Your task to perform on an android device: toggle notifications settings in the gmail app Image 0: 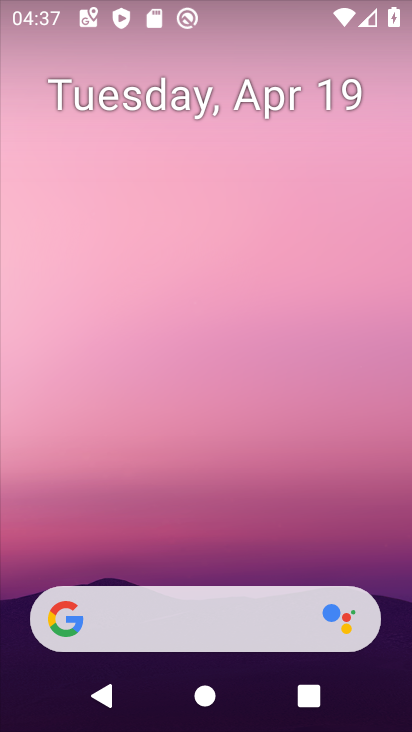
Step 0: drag from (234, 549) to (281, 182)
Your task to perform on an android device: toggle notifications settings in the gmail app Image 1: 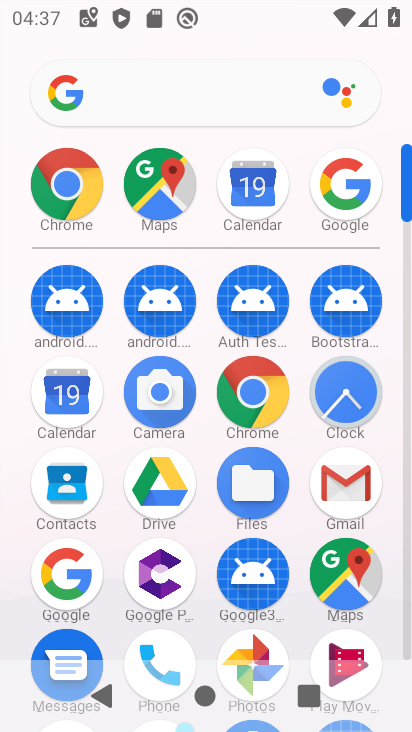
Step 1: click (344, 493)
Your task to perform on an android device: toggle notifications settings in the gmail app Image 2: 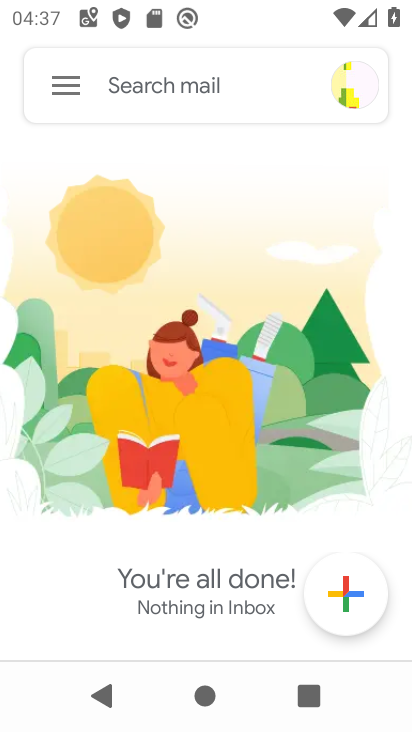
Step 2: click (63, 81)
Your task to perform on an android device: toggle notifications settings in the gmail app Image 3: 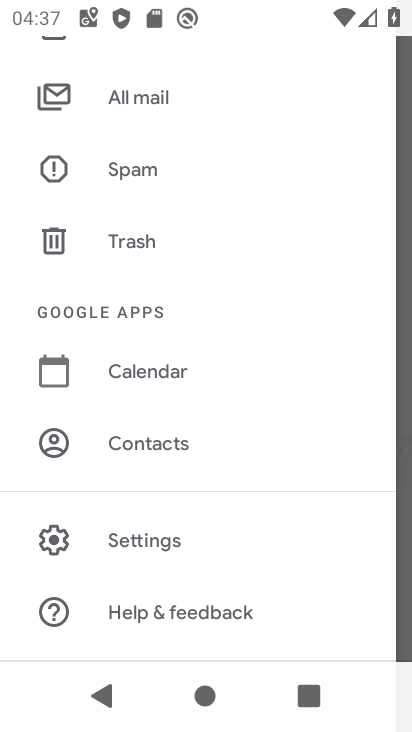
Step 3: click (161, 539)
Your task to perform on an android device: toggle notifications settings in the gmail app Image 4: 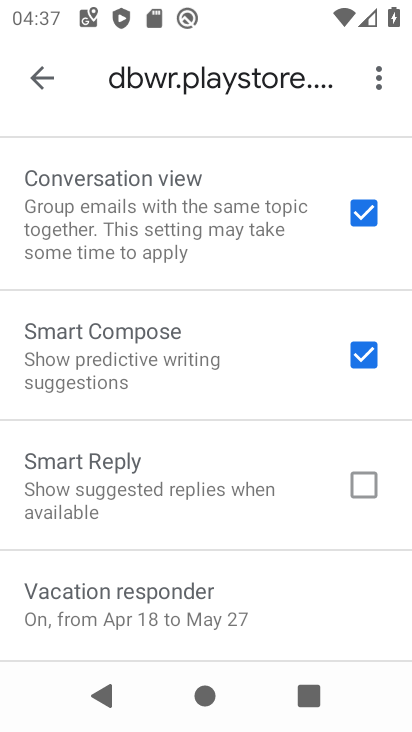
Step 4: drag from (175, 546) to (225, 341)
Your task to perform on an android device: toggle notifications settings in the gmail app Image 5: 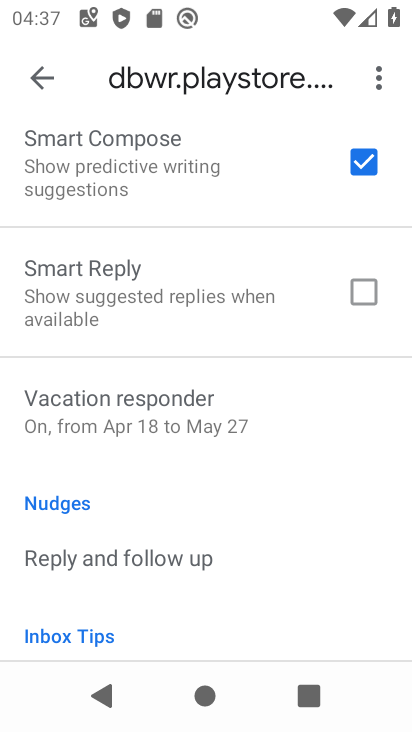
Step 5: drag from (178, 503) to (214, 340)
Your task to perform on an android device: toggle notifications settings in the gmail app Image 6: 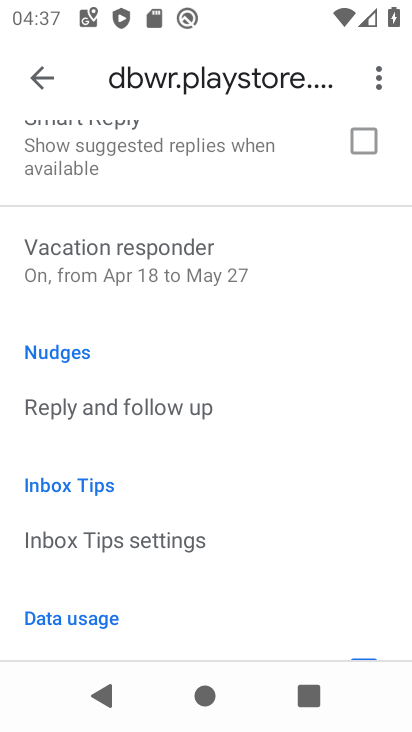
Step 6: drag from (185, 594) to (230, 371)
Your task to perform on an android device: toggle notifications settings in the gmail app Image 7: 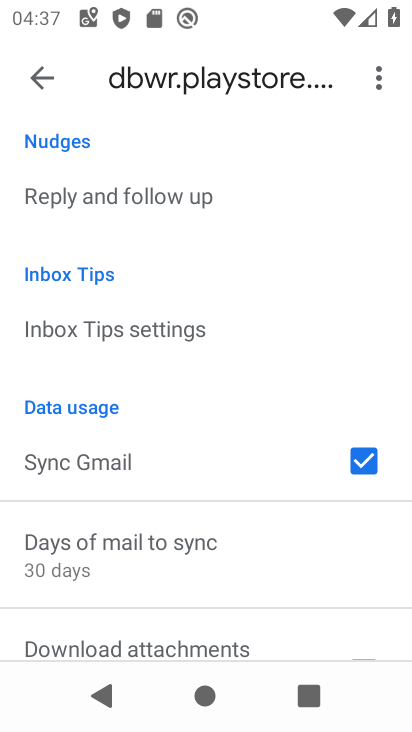
Step 7: drag from (238, 236) to (214, 479)
Your task to perform on an android device: toggle notifications settings in the gmail app Image 8: 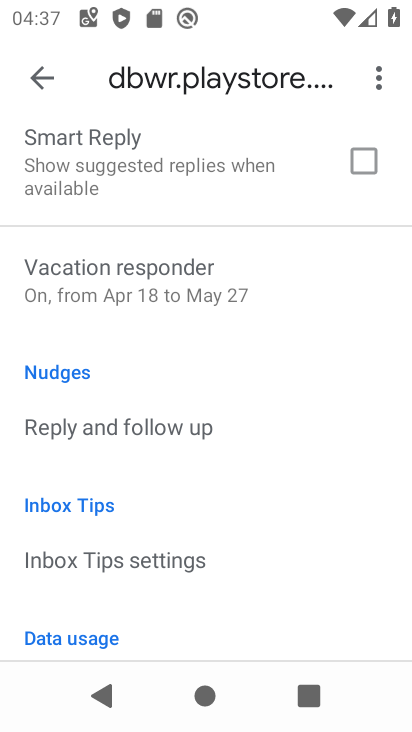
Step 8: drag from (247, 223) to (201, 553)
Your task to perform on an android device: toggle notifications settings in the gmail app Image 9: 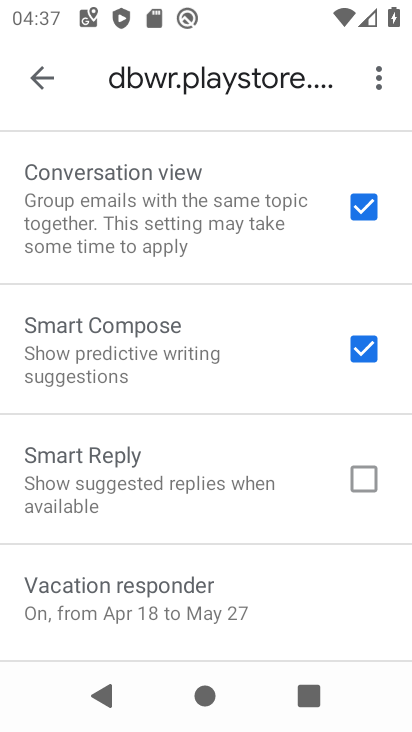
Step 9: drag from (216, 249) to (216, 490)
Your task to perform on an android device: toggle notifications settings in the gmail app Image 10: 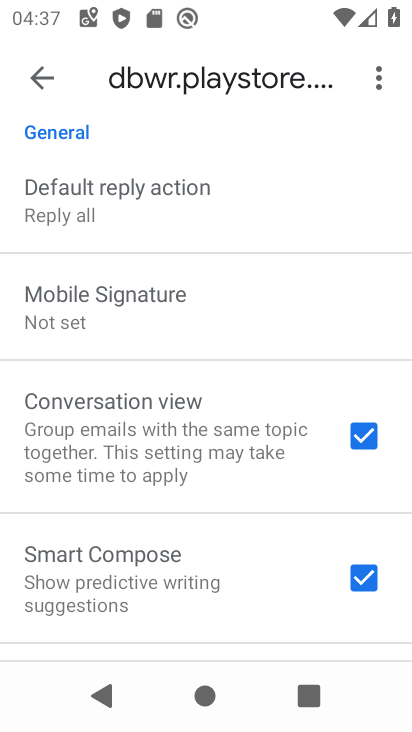
Step 10: drag from (236, 241) to (192, 547)
Your task to perform on an android device: toggle notifications settings in the gmail app Image 11: 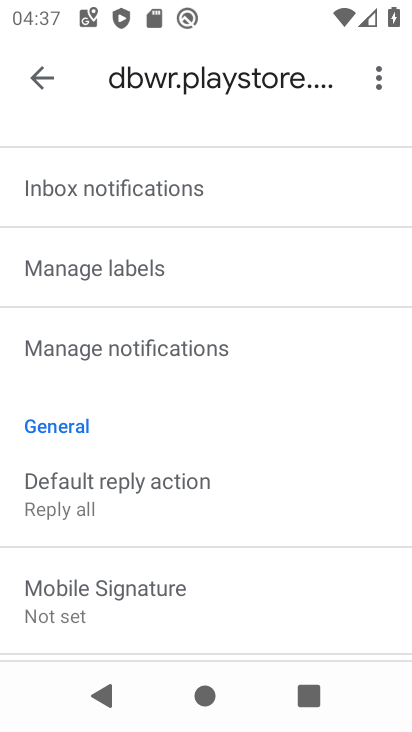
Step 11: drag from (264, 198) to (216, 487)
Your task to perform on an android device: toggle notifications settings in the gmail app Image 12: 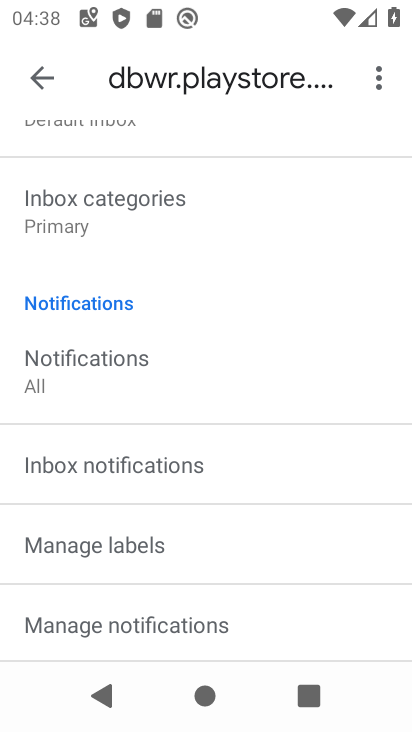
Step 12: click (179, 632)
Your task to perform on an android device: toggle notifications settings in the gmail app Image 13: 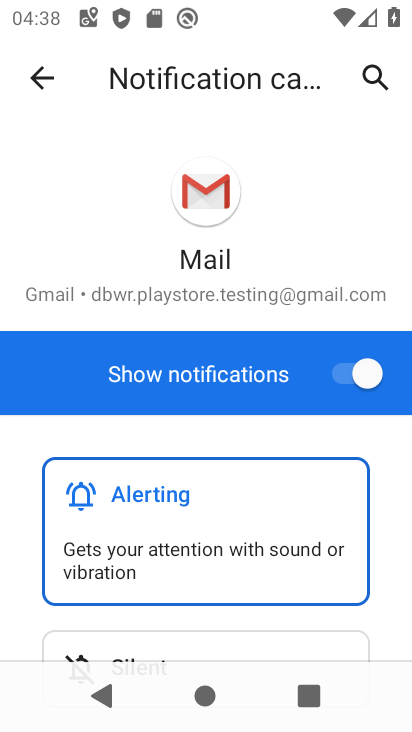
Step 13: click (343, 365)
Your task to perform on an android device: toggle notifications settings in the gmail app Image 14: 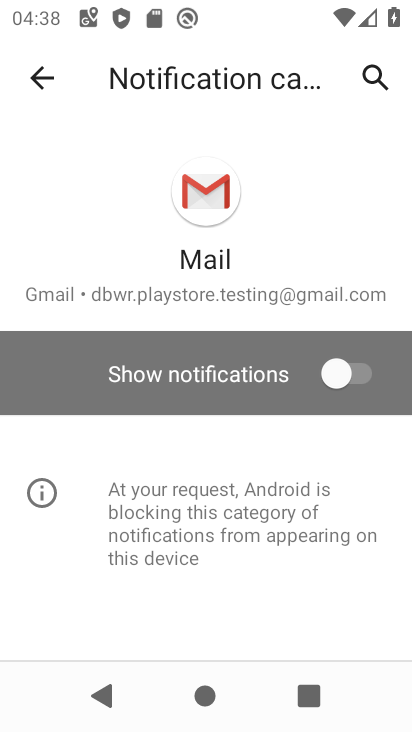
Step 14: task complete